Your task to perform on an android device: move a message to another label in the gmail app Image 0: 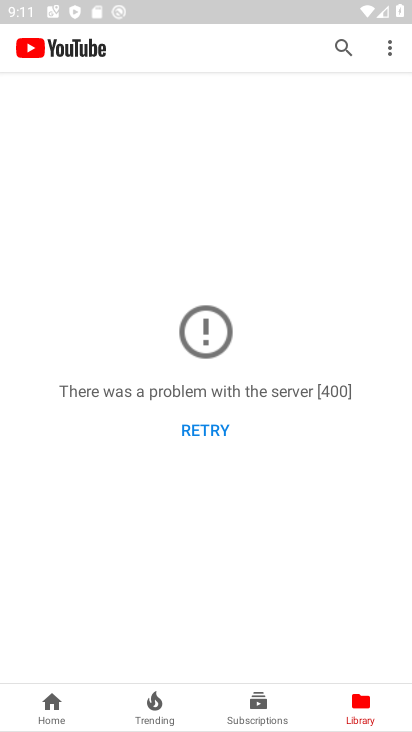
Step 0: press home button
Your task to perform on an android device: move a message to another label in the gmail app Image 1: 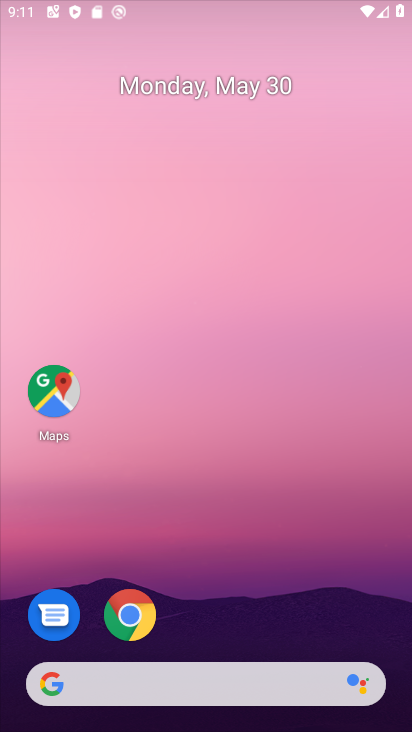
Step 1: drag from (295, 574) to (222, 21)
Your task to perform on an android device: move a message to another label in the gmail app Image 2: 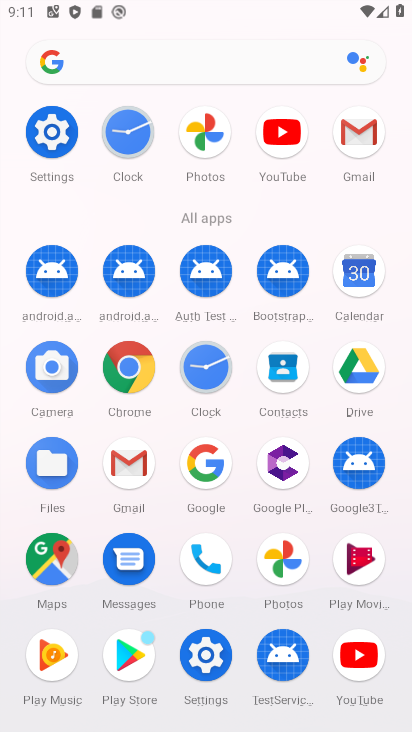
Step 2: click (139, 459)
Your task to perform on an android device: move a message to another label in the gmail app Image 3: 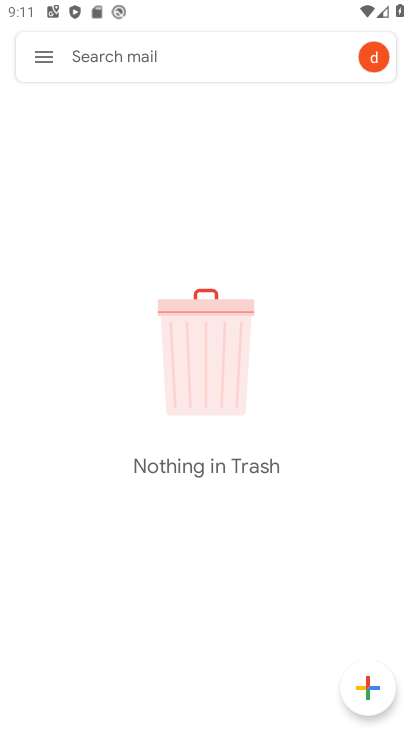
Step 3: click (52, 55)
Your task to perform on an android device: move a message to another label in the gmail app Image 4: 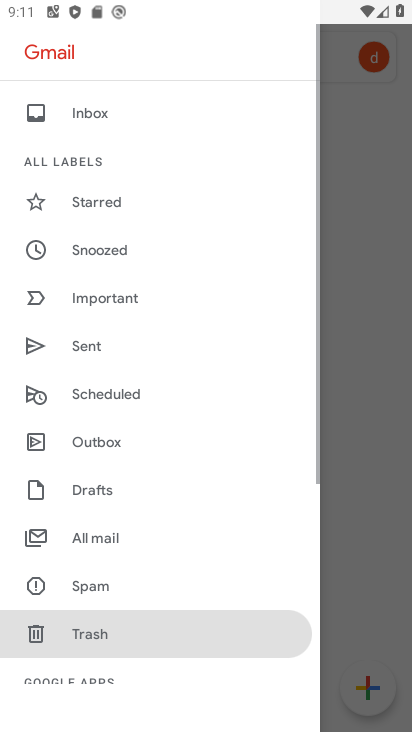
Step 4: click (136, 116)
Your task to perform on an android device: move a message to another label in the gmail app Image 5: 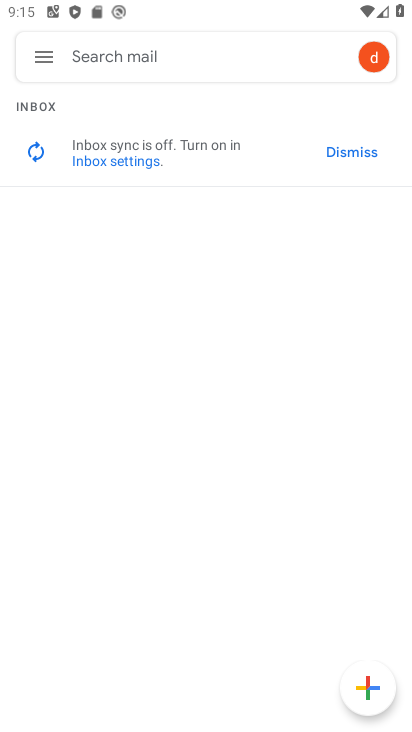
Step 5: task complete